Your task to perform on an android device: change the clock display to digital Image 0: 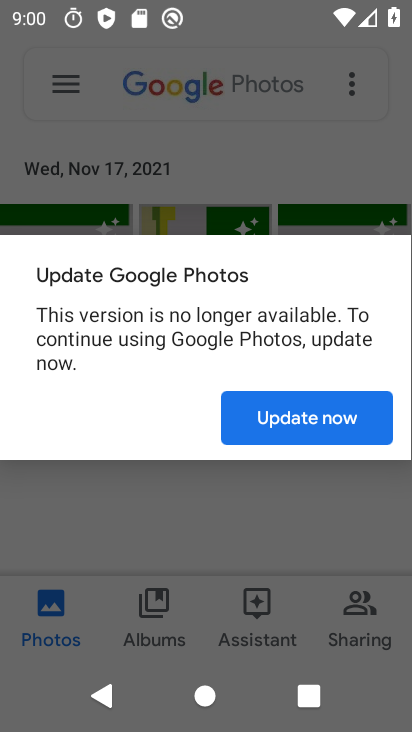
Step 0: press home button
Your task to perform on an android device: change the clock display to digital Image 1: 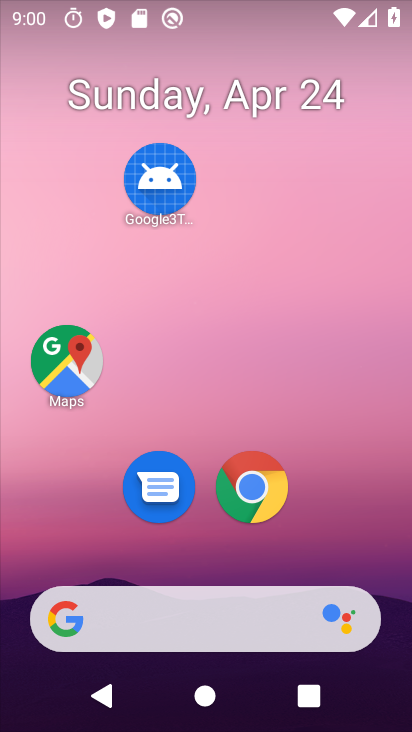
Step 1: drag from (306, 486) to (312, 158)
Your task to perform on an android device: change the clock display to digital Image 2: 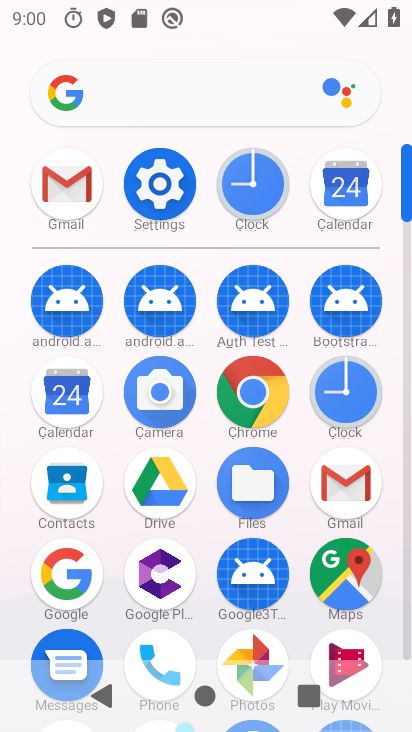
Step 2: click (257, 183)
Your task to perform on an android device: change the clock display to digital Image 3: 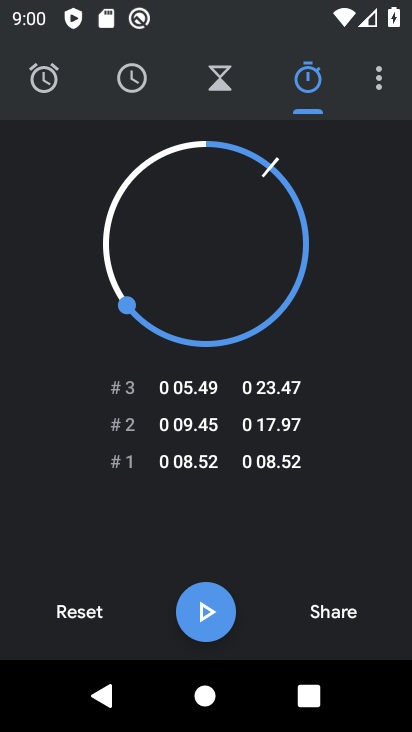
Step 3: click (380, 81)
Your task to perform on an android device: change the clock display to digital Image 4: 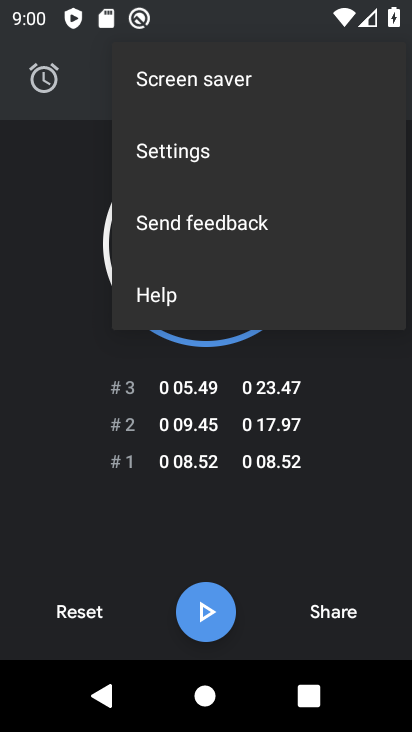
Step 4: click (177, 147)
Your task to perform on an android device: change the clock display to digital Image 5: 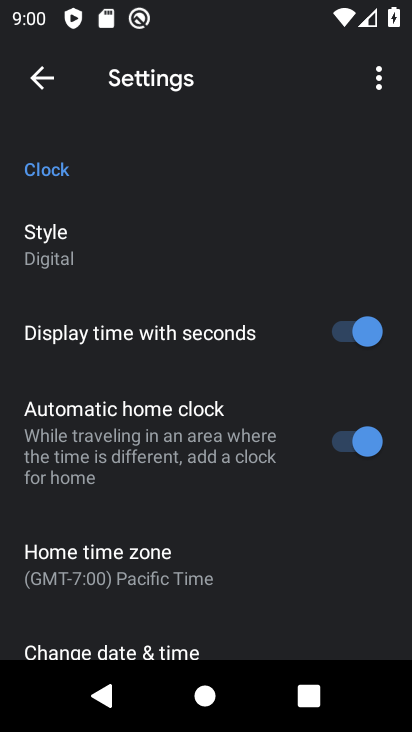
Step 5: task complete